Your task to perform on an android device: stop showing notifications on the lock screen Image 0: 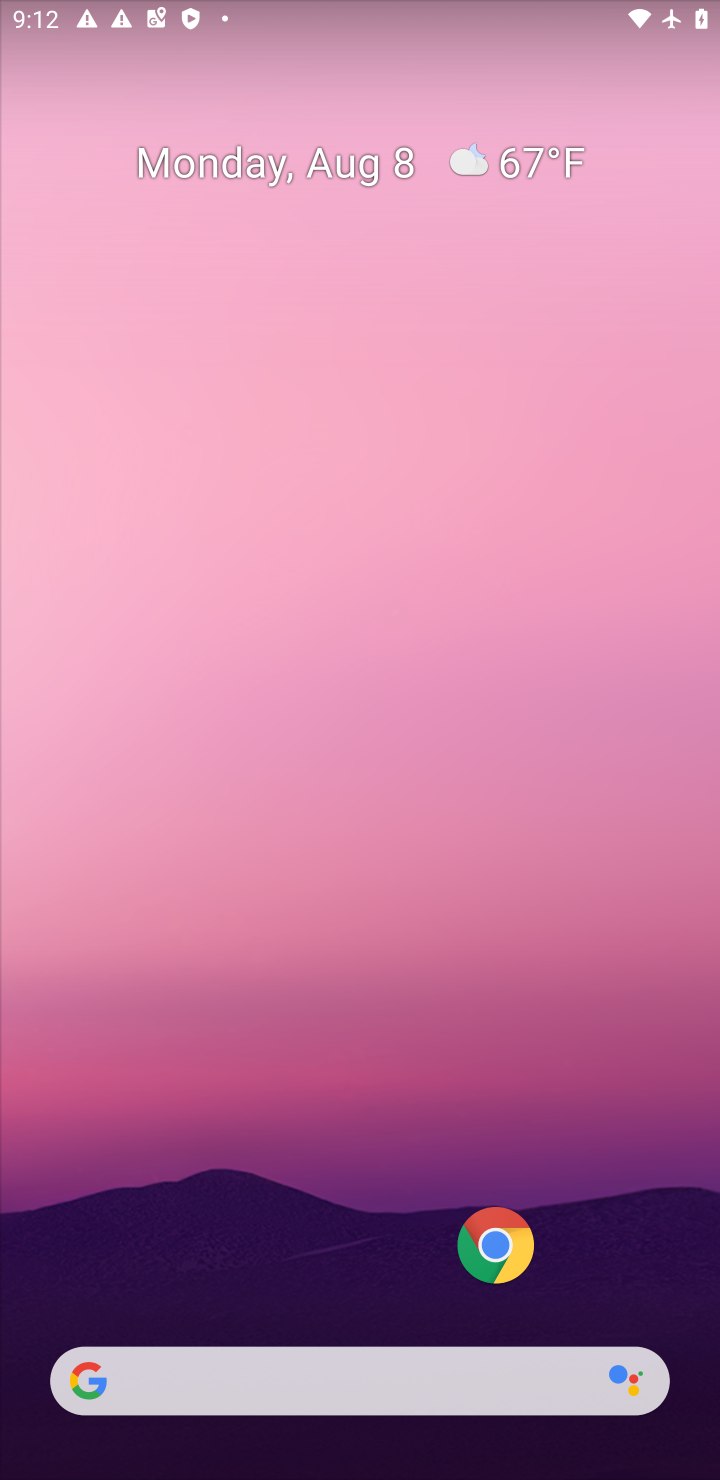
Step 0: drag from (299, 1310) to (283, 3)
Your task to perform on an android device: stop showing notifications on the lock screen Image 1: 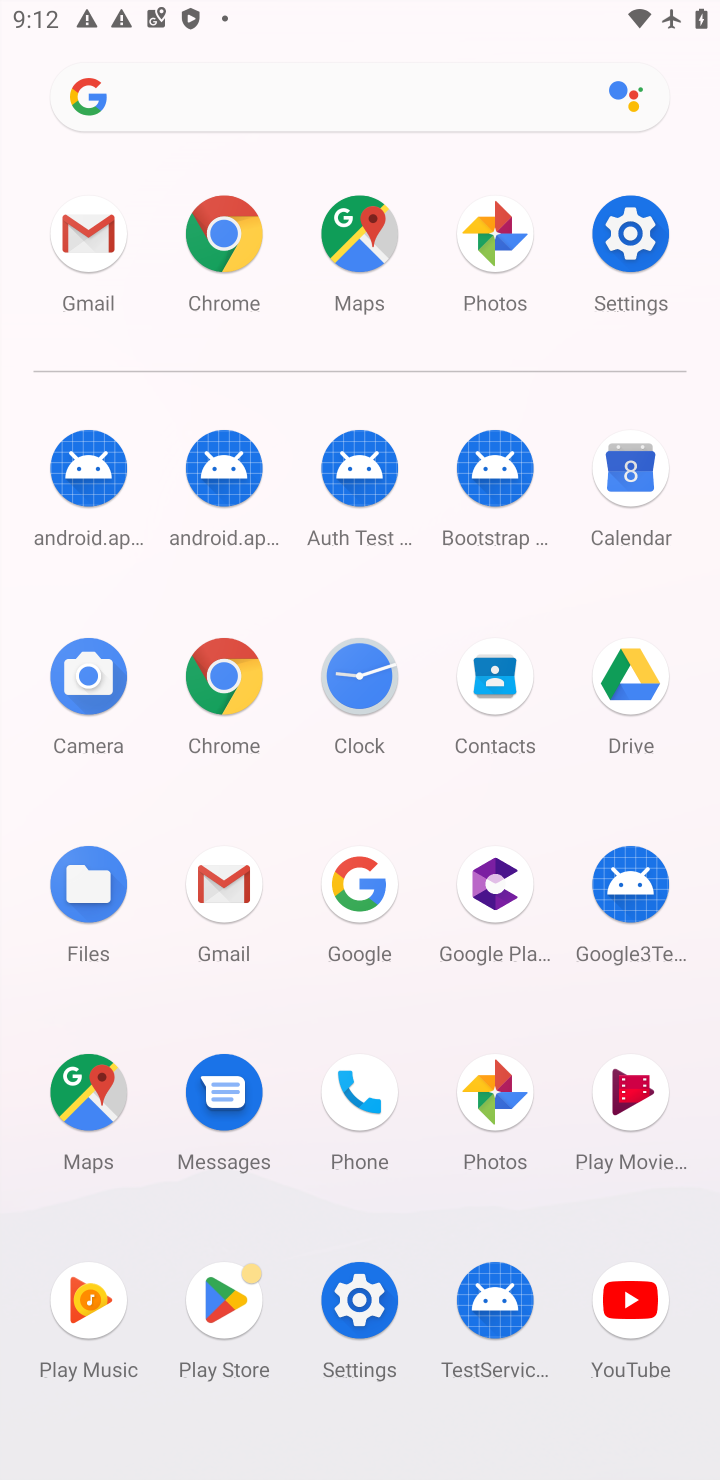
Step 1: click (642, 292)
Your task to perform on an android device: stop showing notifications on the lock screen Image 2: 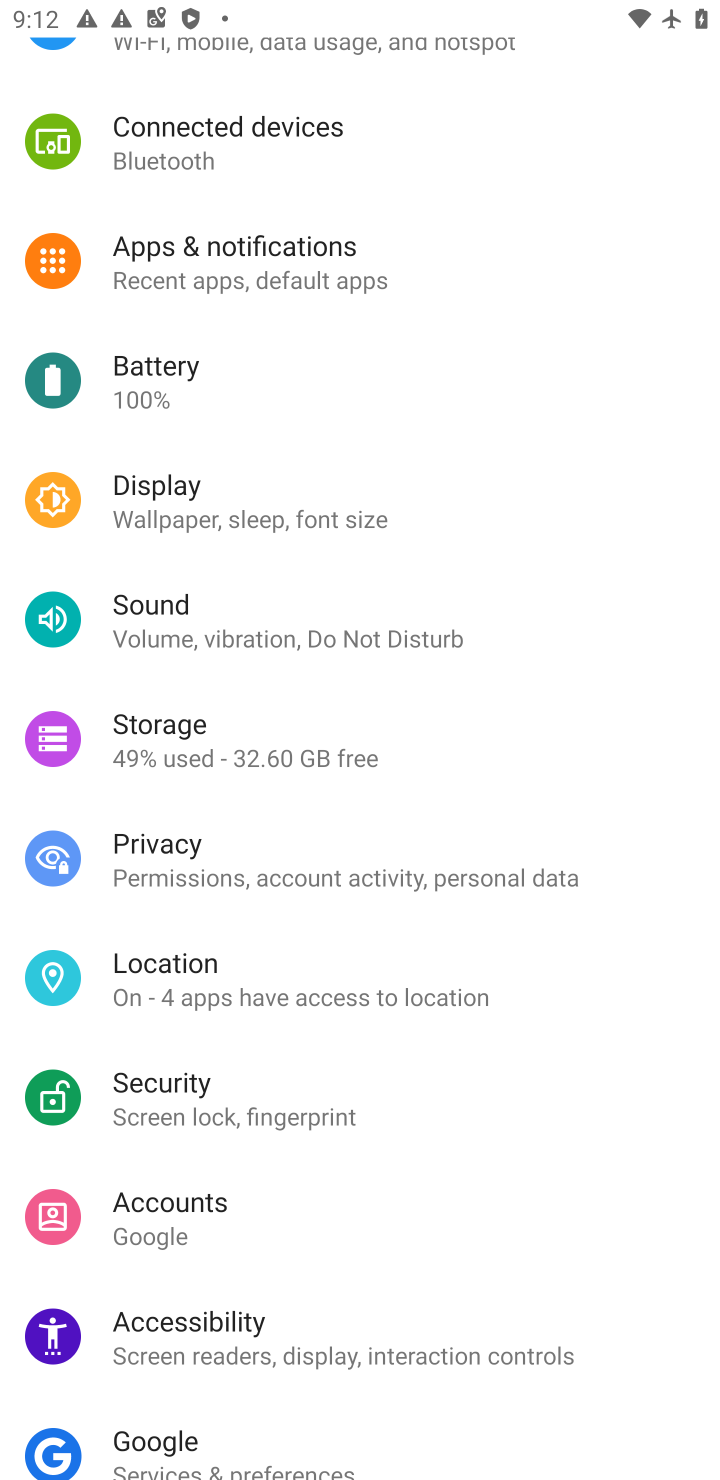
Step 2: click (252, 261)
Your task to perform on an android device: stop showing notifications on the lock screen Image 3: 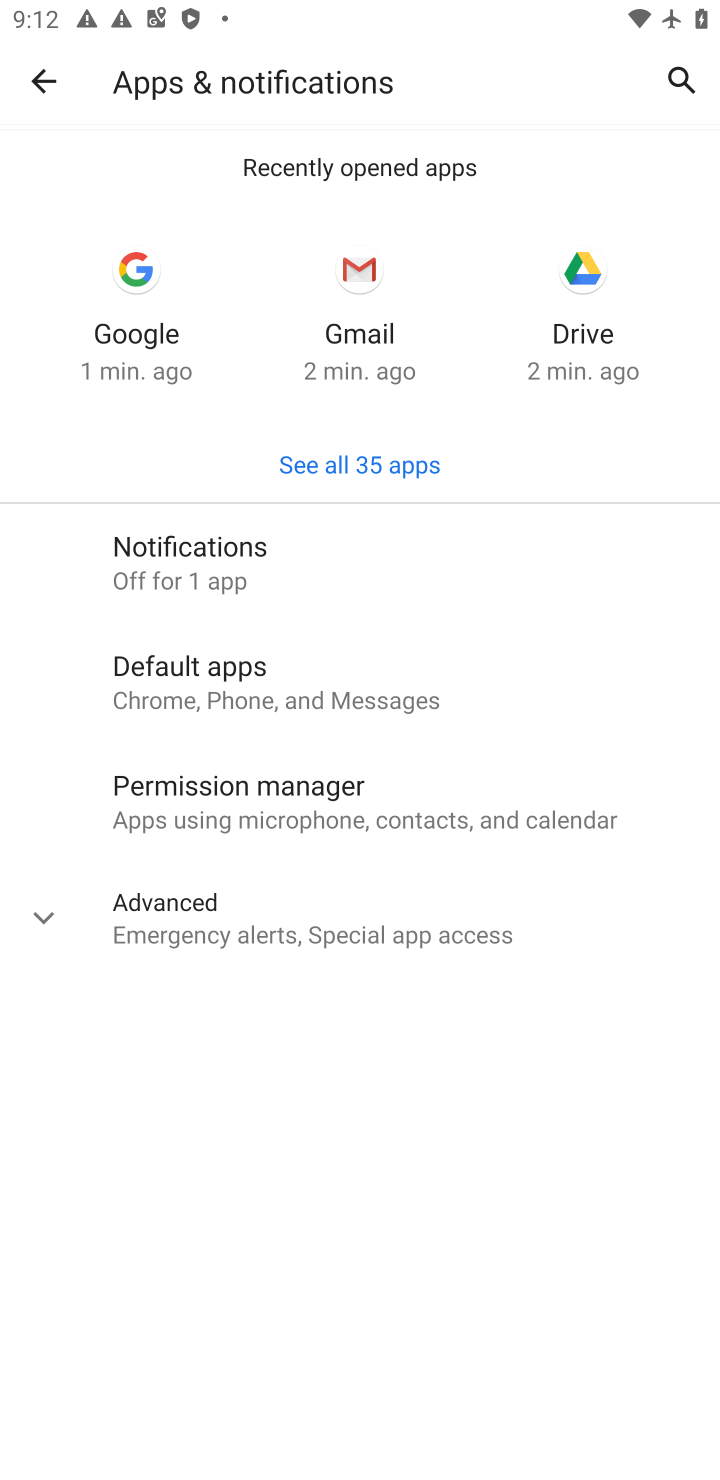
Step 3: click (240, 561)
Your task to perform on an android device: stop showing notifications on the lock screen Image 4: 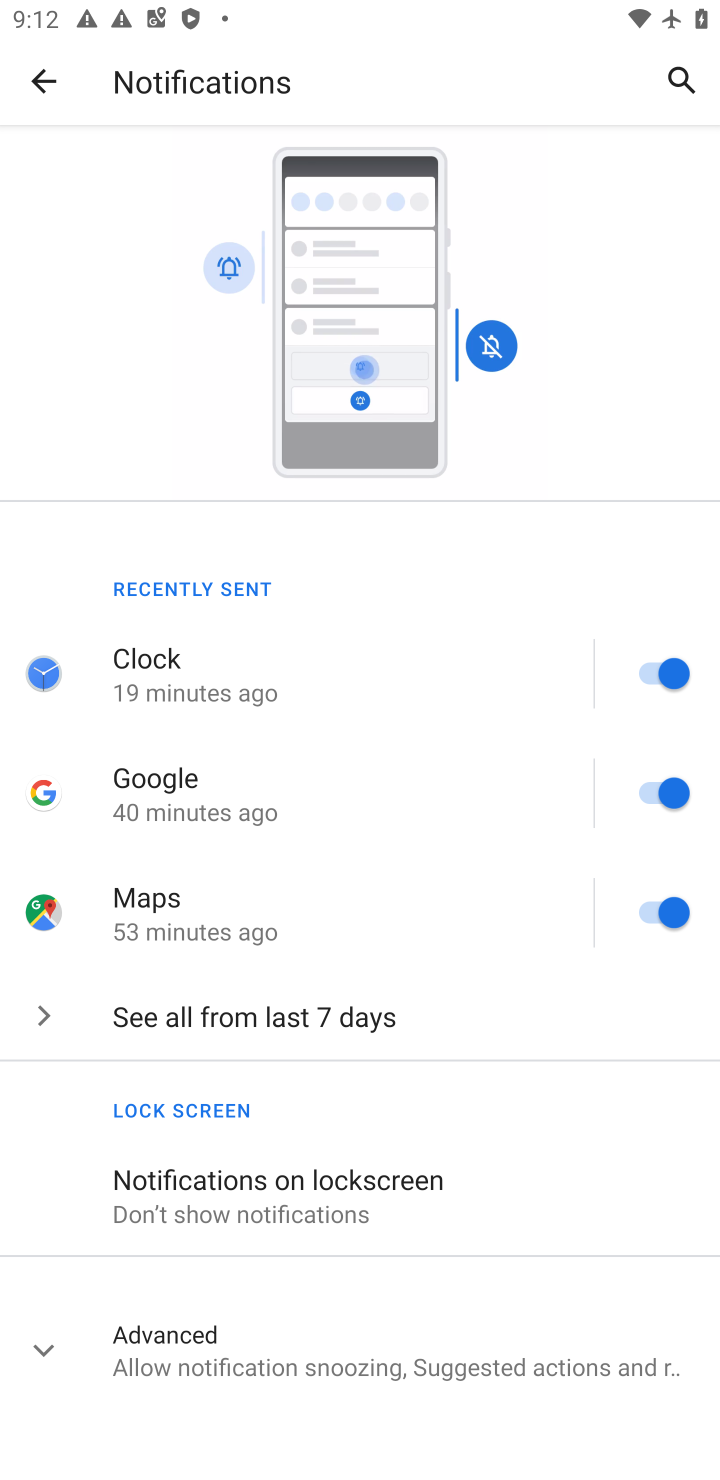
Step 4: click (376, 1193)
Your task to perform on an android device: stop showing notifications on the lock screen Image 5: 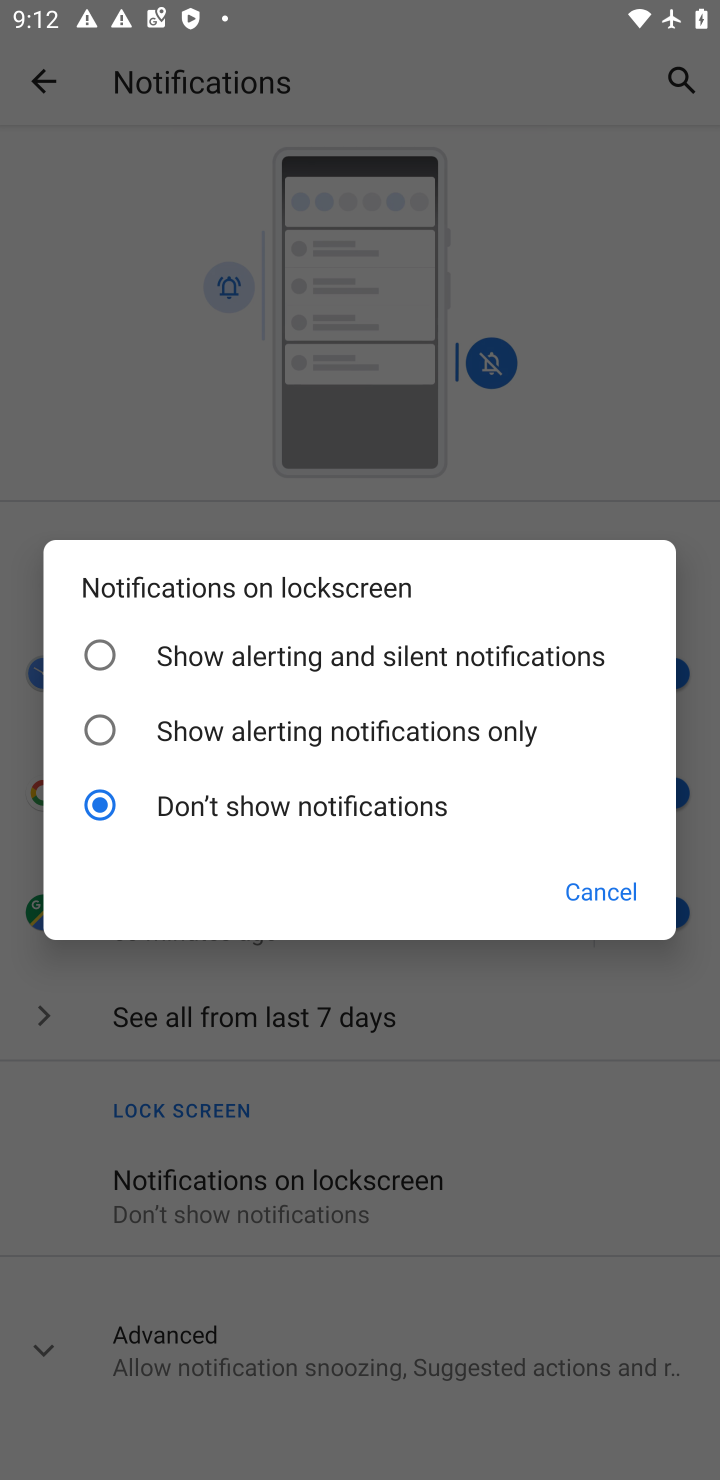
Step 5: task complete